Your task to perform on an android device: toggle javascript in the chrome app Image 0: 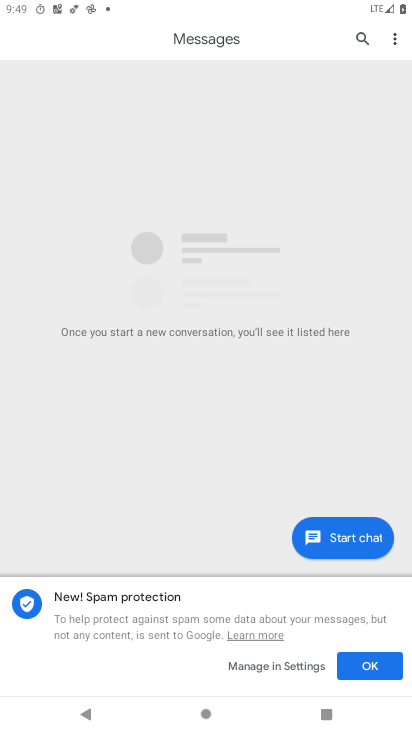
Step 0: press home button
Your task to perform on an android device: toggle javascript in the chrome app Image 1: 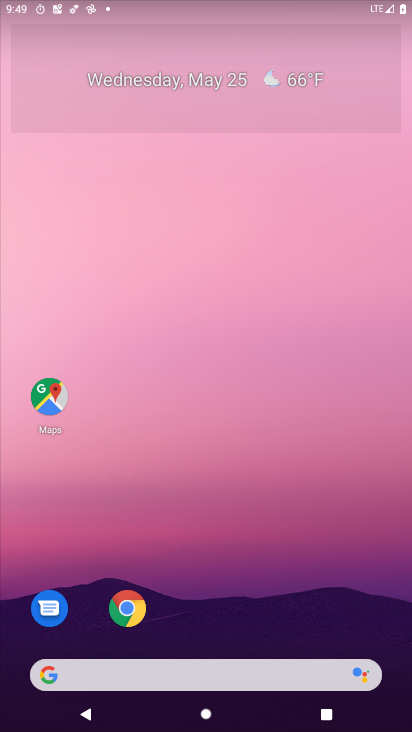
Step 1: click (129, 624)
Your task to perform on an android device: toggle javascript in the chrome app Image 2: 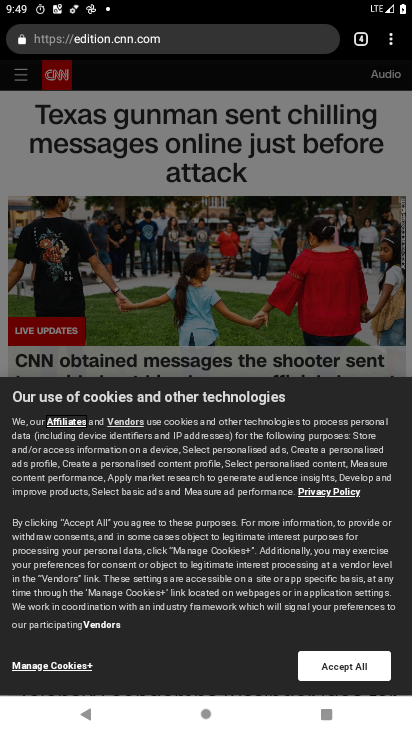
Step 2: click (393, 48)
Your task to perform on an android device: toggle javascript in the chrome app Image 3: 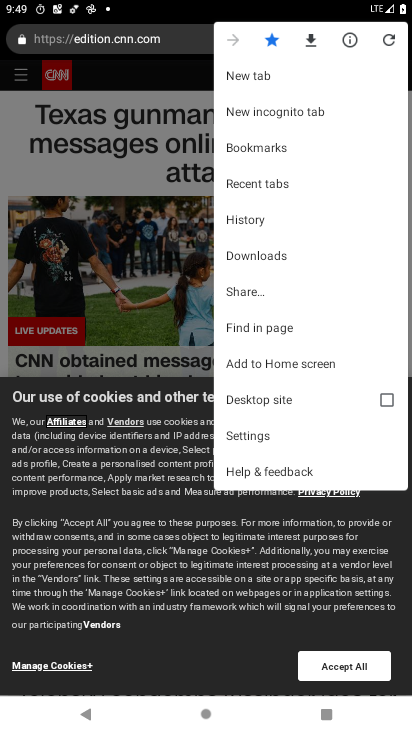
Step 3: click (245, 442)
Your task to perform on an android device: toggle javascript in the chrome app Image 4: 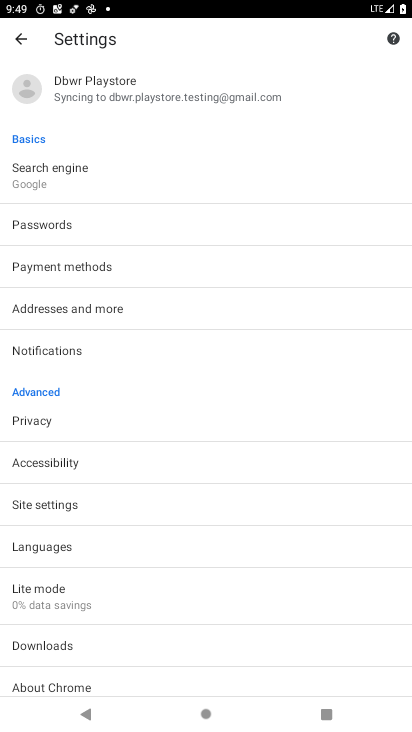
Step 4: click (48, 499)
Your task to perform on an android device: toggle javascript in the chrome app Image 5: 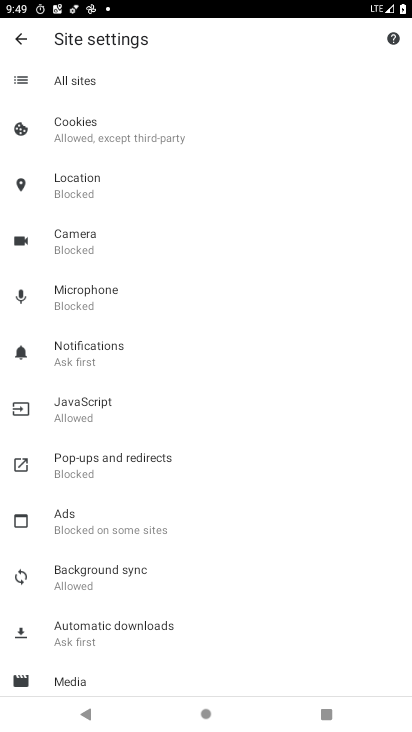
Step 5: click (82, 408)
Your task to perform on an android device: toggle javascript in the chrome app Image 6: 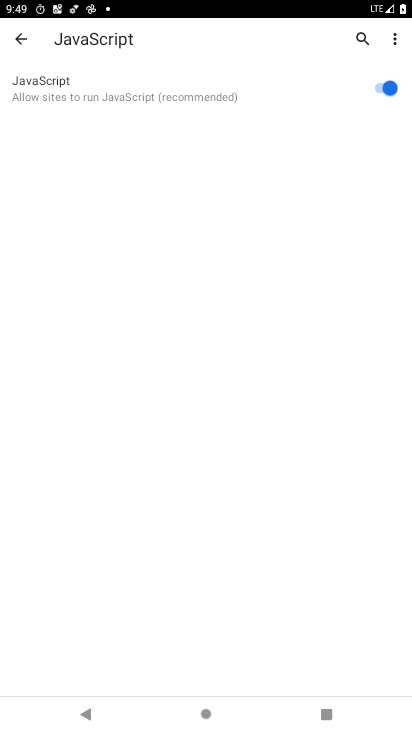
Step 6: click (380, 85)
Your task to perform on an android device: toggle javascript in the chrome app Image 7: 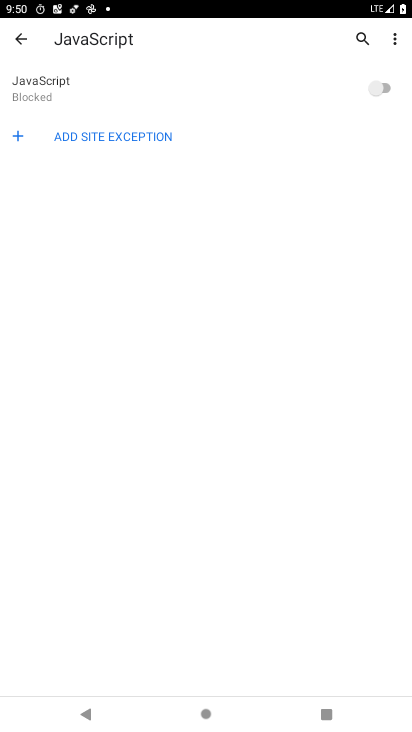
Step 7: task complete